Your task to perform on an android device: remove spam from my inbox in the gmail app Image 0: 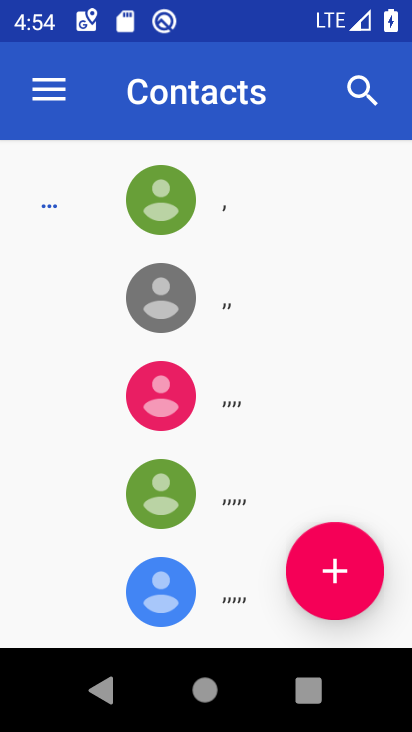
Step 0: press home button
Your task to perform on an android device: remove spam from my inbox in the gmail app Image 1: 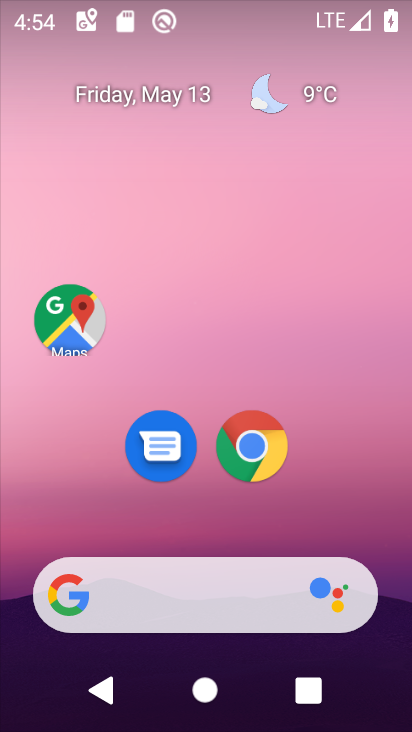
Step 1: drag from (208, 542) to (206, 52)
Your task to perform on an android device: remove spam from my inbox in the gmail app Image 2: 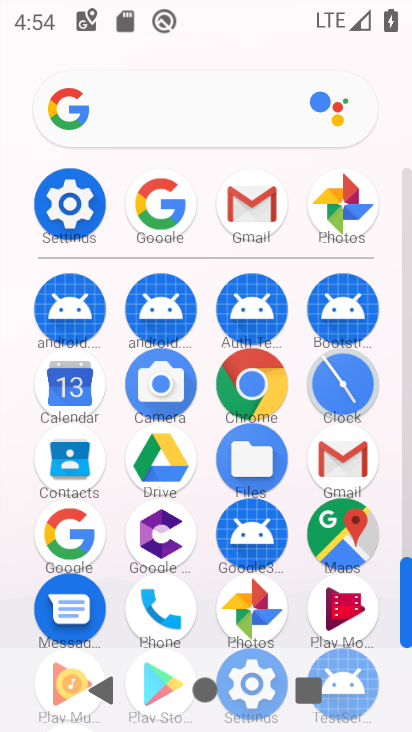
Step 2: click (321, 462)
Your task to perform on an android device: remove spam from my inbox in the gmail app Image 3: 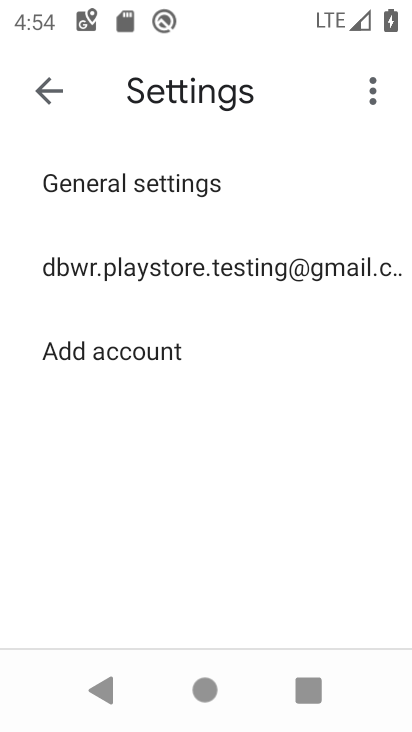
Step 3: click (56, 92)
Your task to perform on an android device: remove spam from my inbox in the gmail app Image 4: 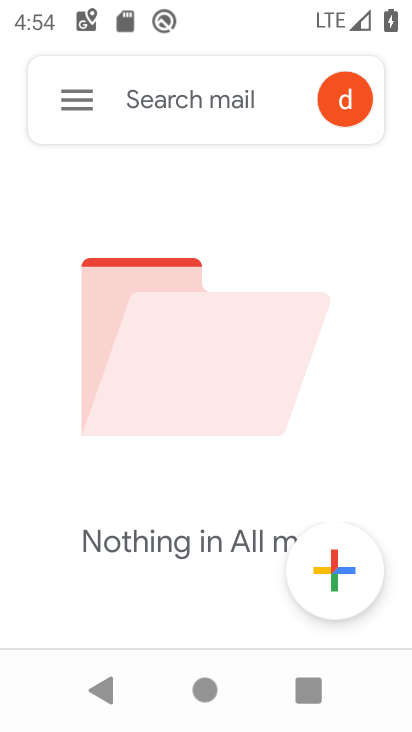
Step 4: click (85, 101)
Your task to perform on an android device: remove spam from my inbox in the gmail app Image 5: 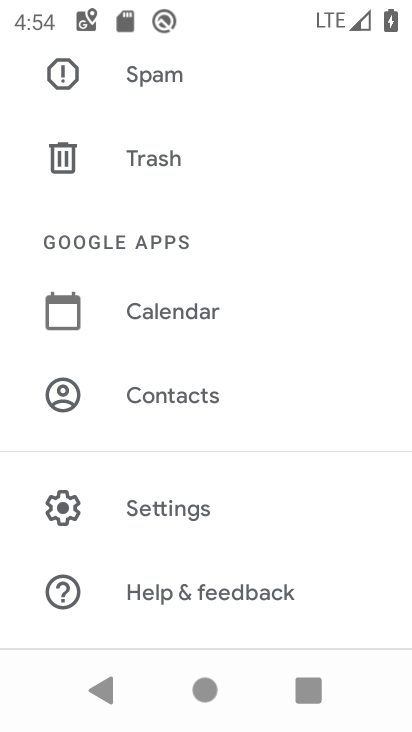
Step 5: click (200, 70)
Your task to perform on an android device: remove spam from my inbox in the gmail app Image 6: 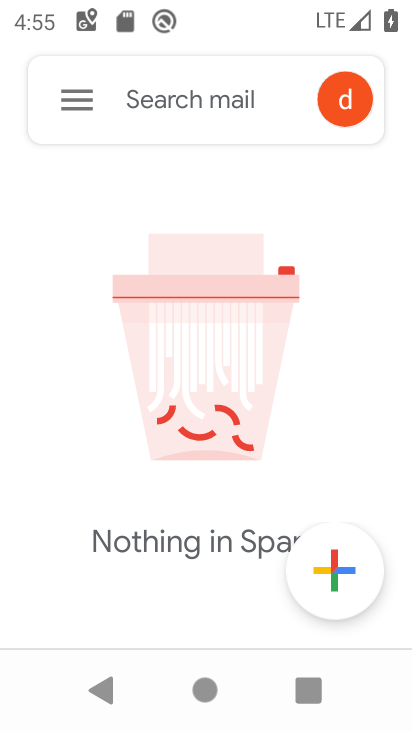
Step 6: task complete